Your task to perform on an android device: turn vacation reply on in the gmail app Image 0: 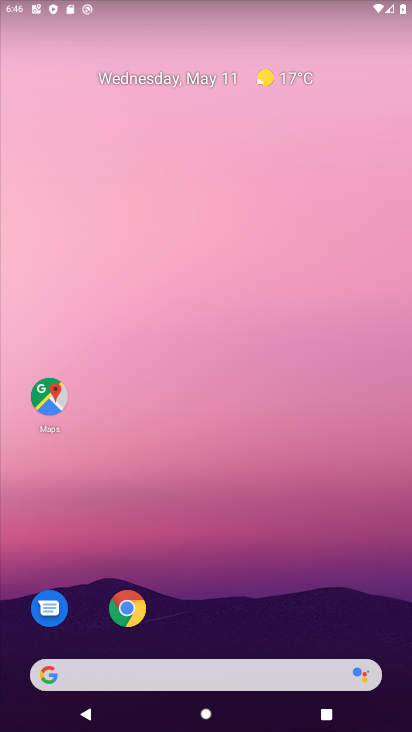
Step 0: drag from (261, 635) to (258, 14)
Your task to perform on an android device: turn vacation reply on in the gmail app Image 1: 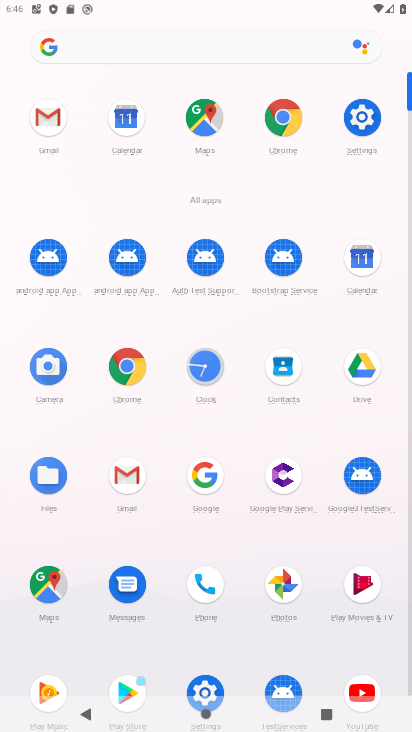
Step 1: click (61, 122)
Your task to perform on an android device: turn vacation reply on in the gmail app Image 2: 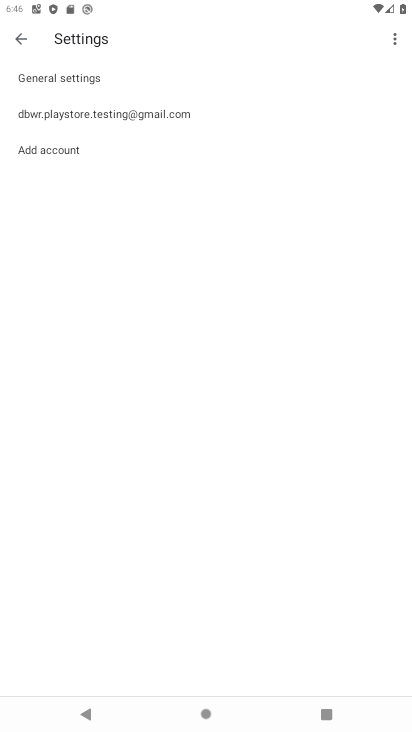
Step 2: click (47, 103)
Your task to perform on an android device: turn vacation reply on in the gmail app Image 3: 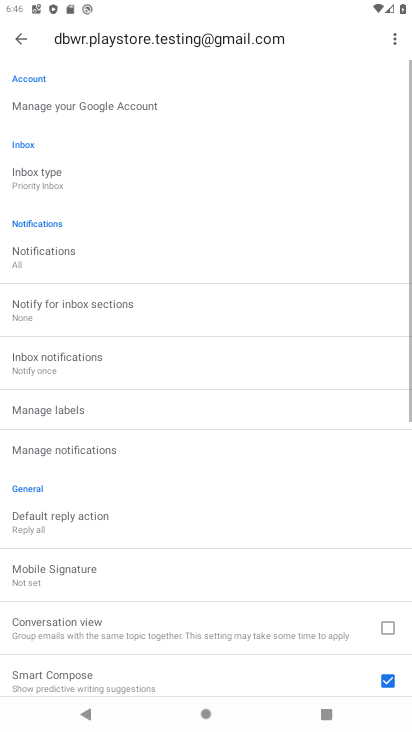
Step 3: drag from (152, 532) to (198, 297)
Your task to perform on an android device: turn vacation reply on in the gmail app Image 4: 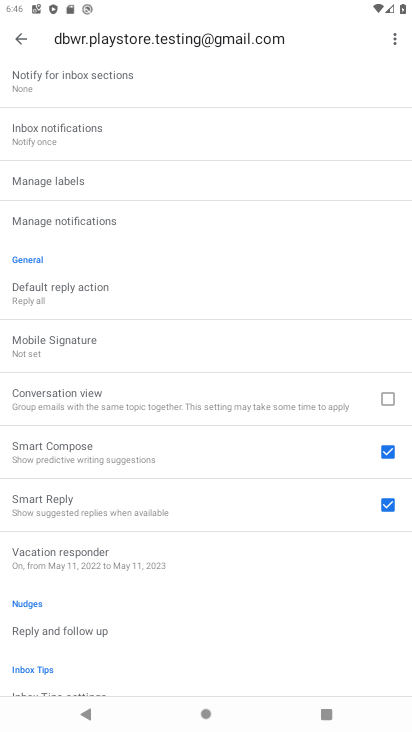
Step 4: click (160, 551)
Your task to perform on an android device: turn vacation reply on in the gmail app Image 5: 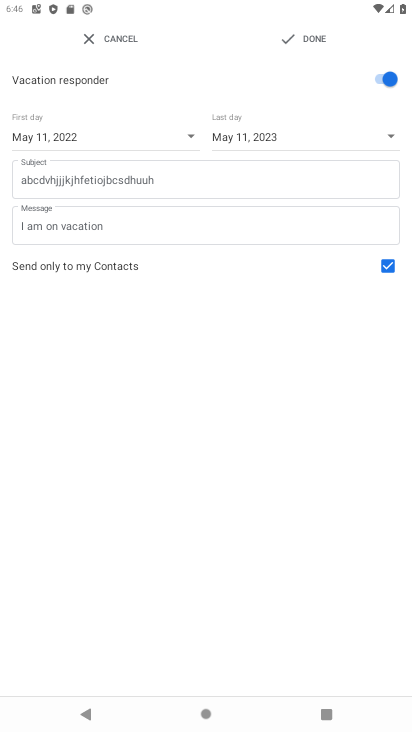
Step 5: click (305, 48)
Your task to perform on an android device: turn vacation reply on in the gmail app Image 6: 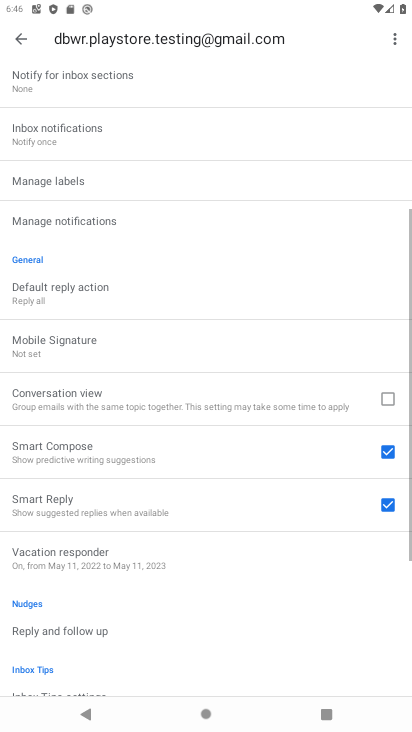
Step 6: task complete